Your task to perform on an android device: Open the web browser Image 0: 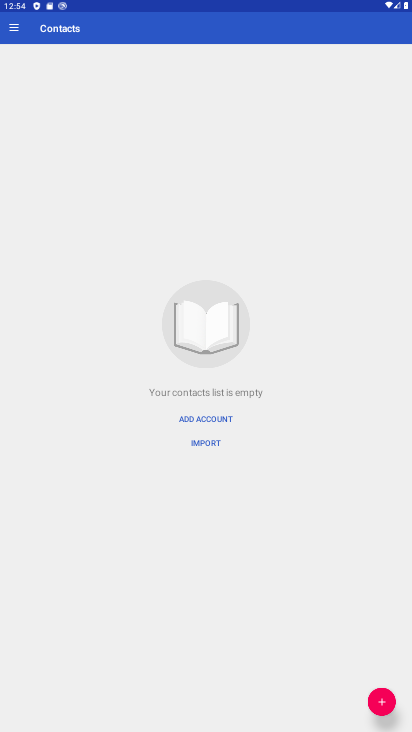
Step 0: click (289, 708)
Your task to perform on an android device: Open the web browser Image 1: 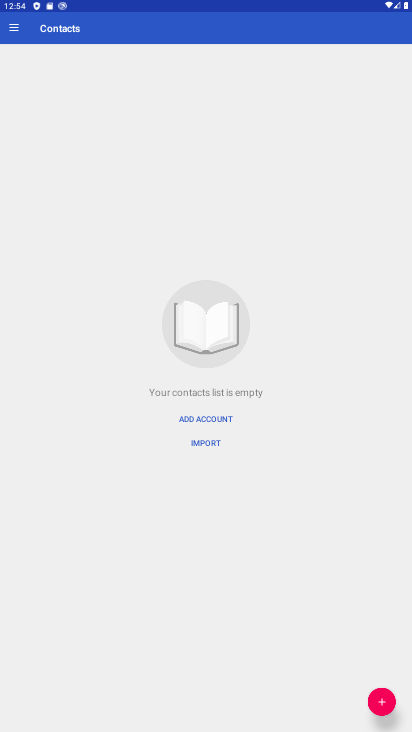
Step 1: press home button
Your task to perform on an android device: Open the web browser Image 2: 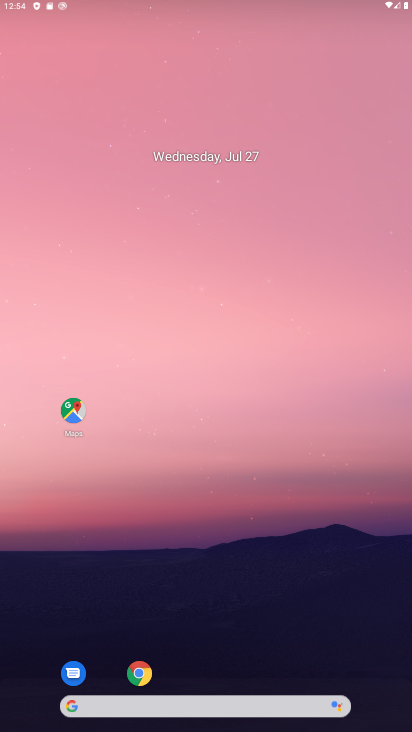
Step 2: click (137, 679)
Your task to perform on an android device: Open the web browser Image 3: 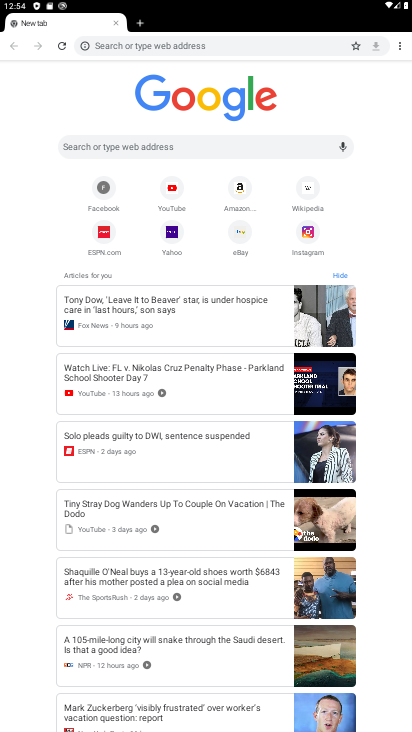
Step 3: task complete